Your task to perform on an android device: add a contact Image 0: 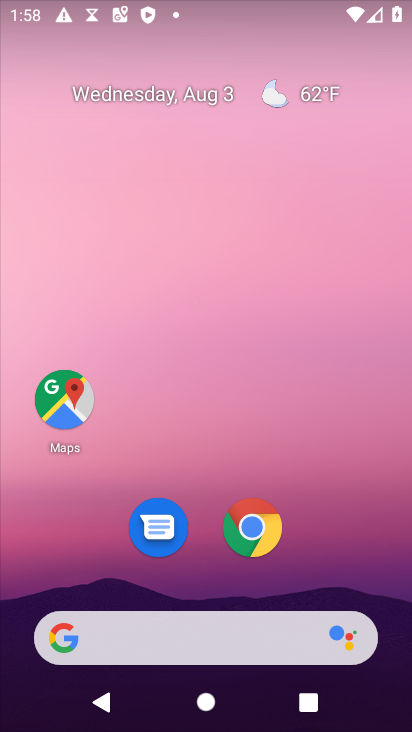
Step 0: drag from (183, 578) to (190, 88)
Your task to perform on an android device: add a contact Image 1: 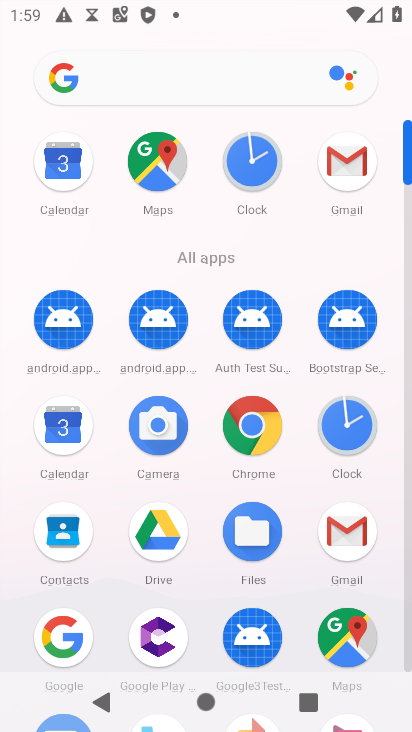
Step 1: click (68, 541)
Your task to perform on an android device: add a contact Image 2: 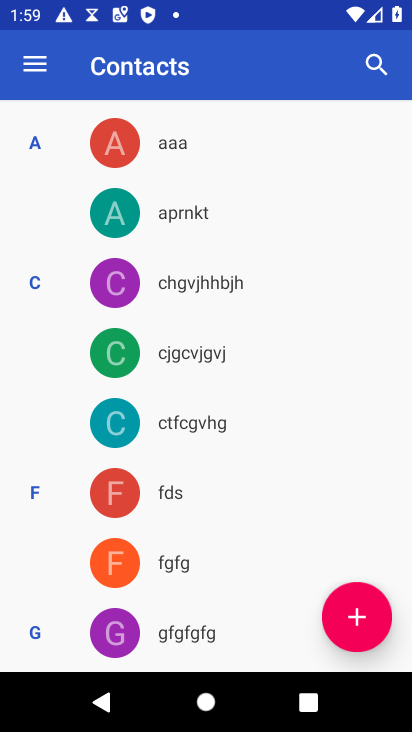
Step 2: click (360, 604)
Your task to perform on an android device: add a contact Image 3: 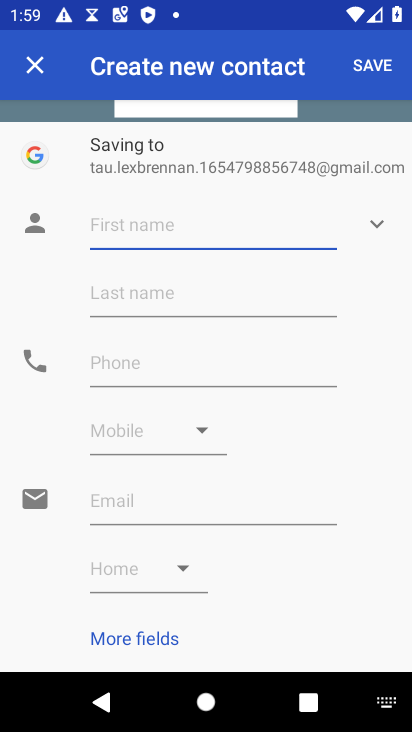
Step 3: type "Nariman"
Your task to perform on an android device: add a contact Image 4: 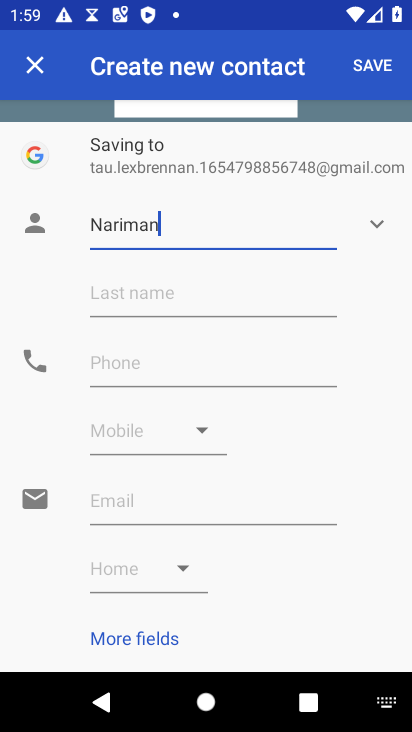
Step 4: click (188, 328)
Your task to perform on an android device: add a contact Image 5: 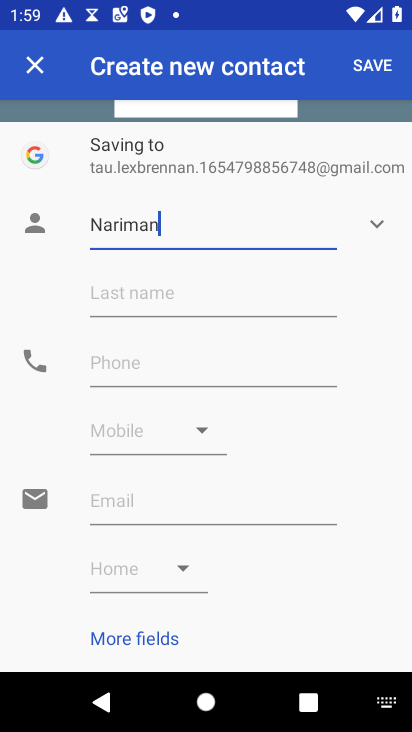
Step 5: click (188, 311)
Your task to perform on an android device: add a contact Image 6: 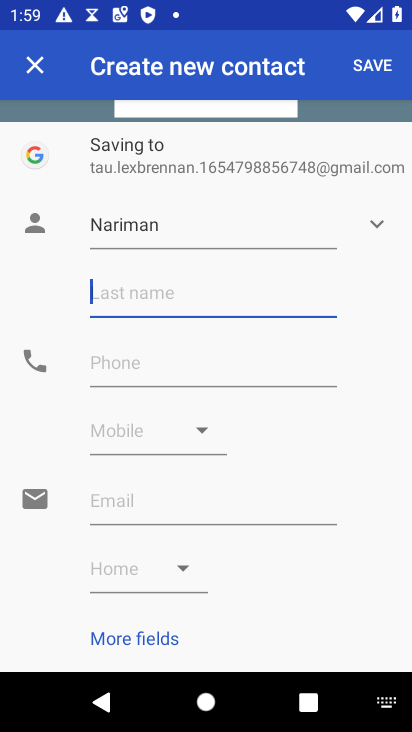
Step 6: type "Sinha"
Your task to perform on an android device: add a contact Image 7: 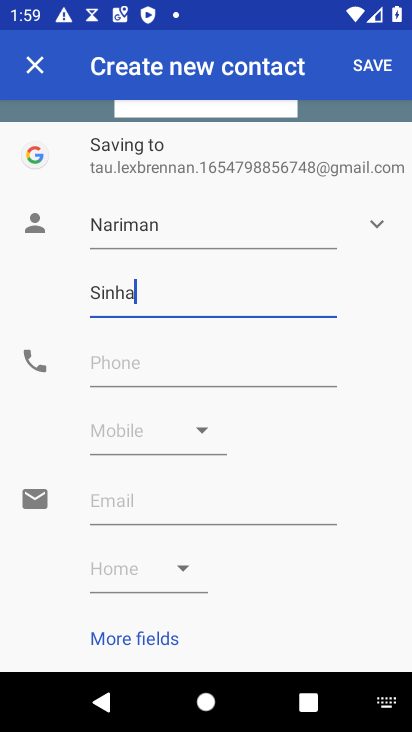
Step 7: click (255, 372)
Your task to perform on an android device: add a contact Image 8: 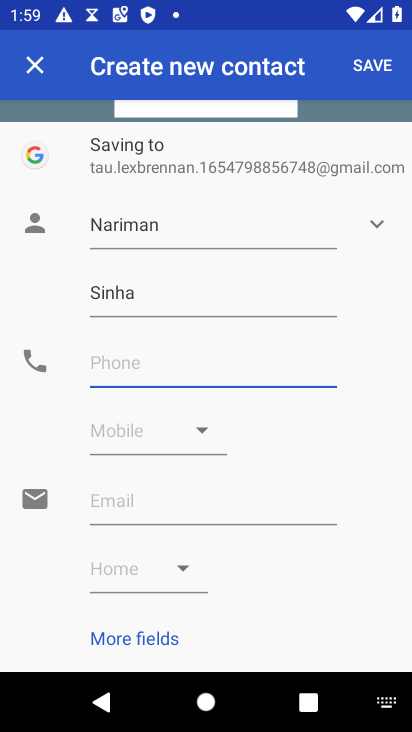
Step 8: type "7890098700"
Your task to perform on an android device: add a contact Image 9: 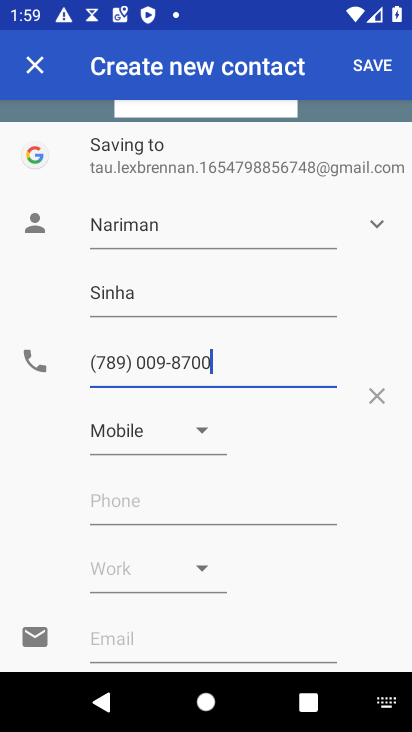
Step 9: click (368, 66)
Your task to perform on an android device: add a contact Image 10: 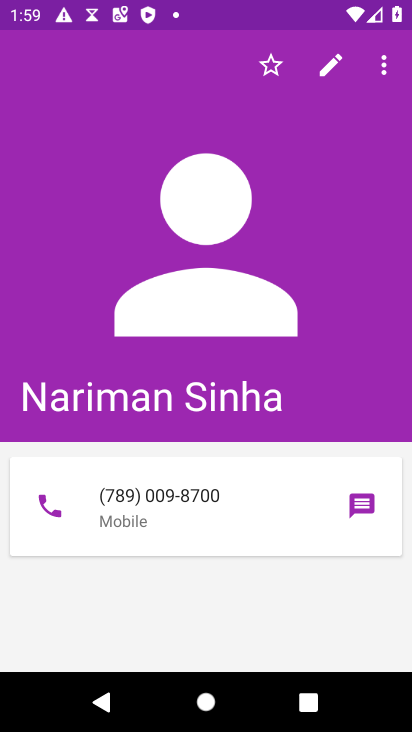
Step 10: task complete